Your task to perform on an android device: turn notification dots off Image 0: 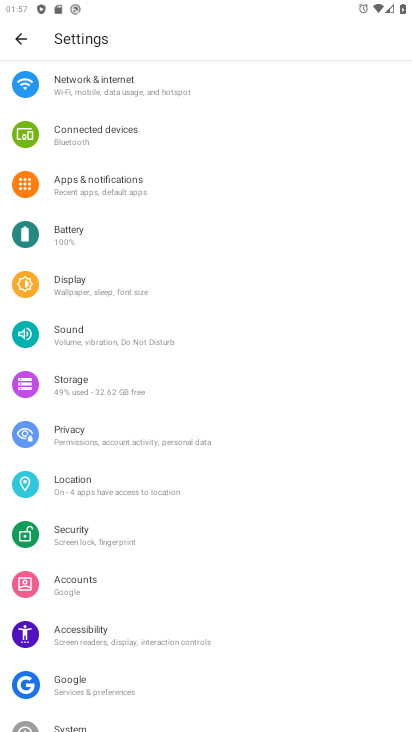
Step 0: click (99, 177)
Your task to perform on an android device: turn notification dots off Image 1: 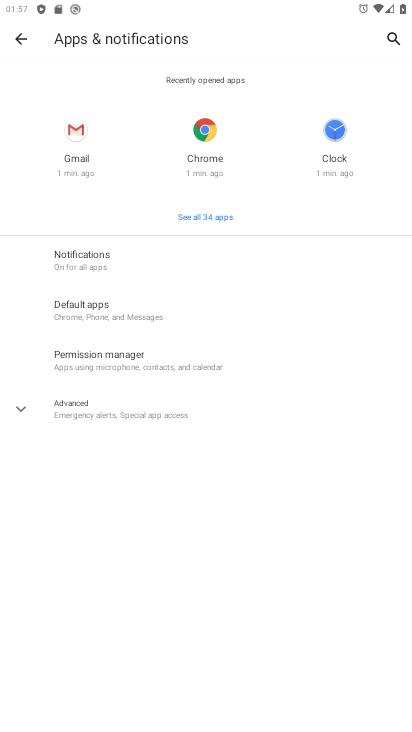
Step 1: click (100, 401)
Your task to perform on an android device: turn notification dots off Image 2: 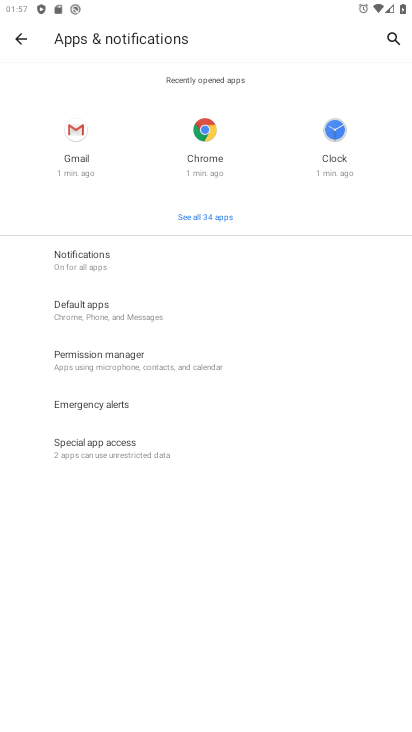
Step 2: click (115, 253)
Your task to perform on an android device: turn notification dots off Image 3: 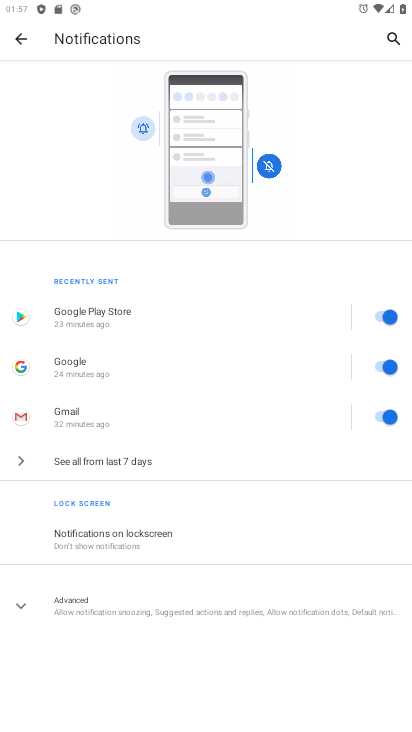
Step 3: click (96, 612)
Your task to perform on an android device: turn notification dots off Image 4: 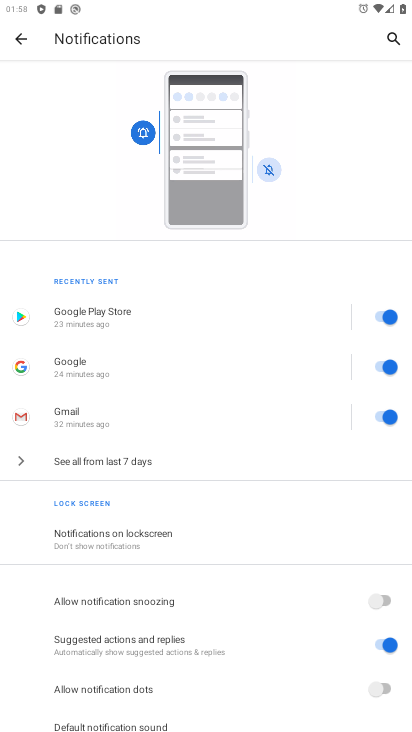
Step 4: task complete